Your task to perform on an android device: open app "Nova Launcher" (install if not already installed) Image 0: 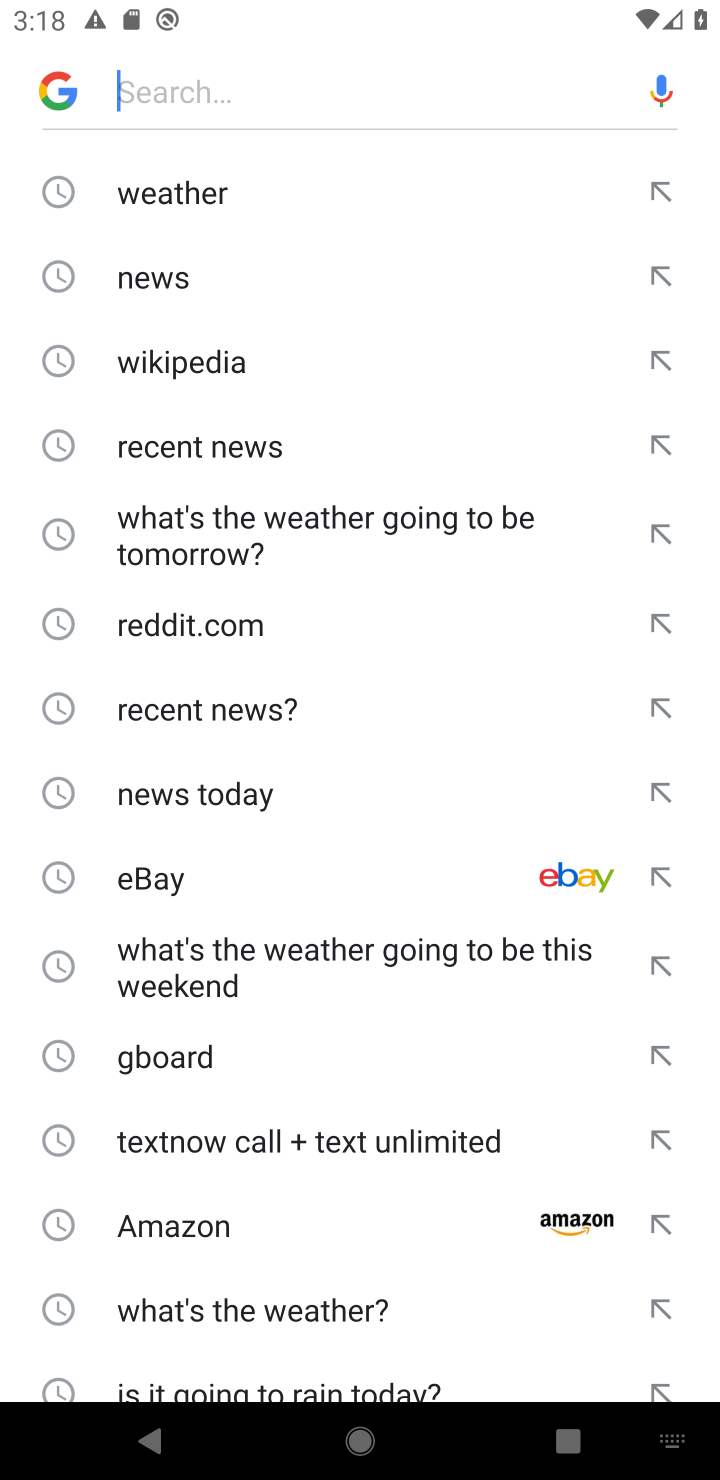
Step 0: press back button
Your task to perform on an android device: open app "Nova Launcher" (install if not already installed) Image 1: 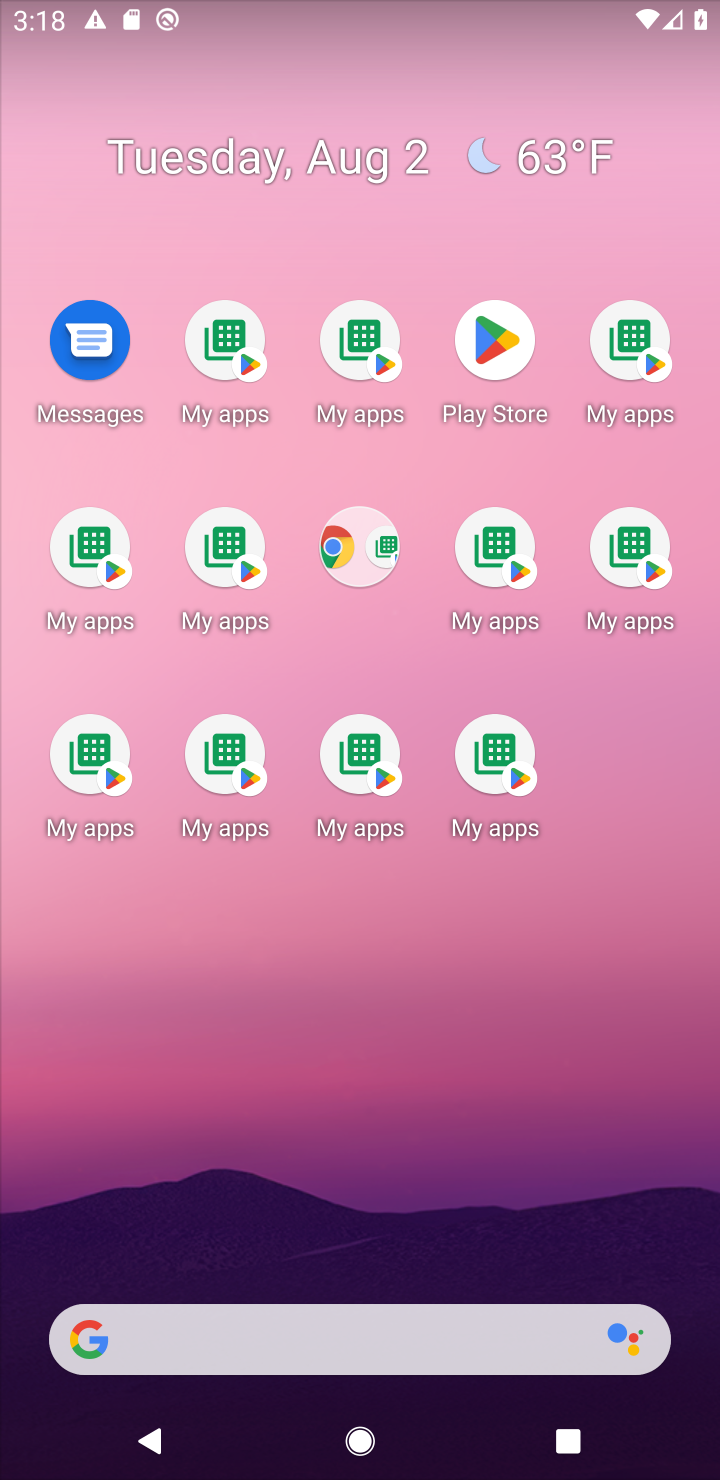
Step 1: click (506, 333)
Your task to perform on an android device: open app "Nova Launcher" (install if not already installed) Image 2: 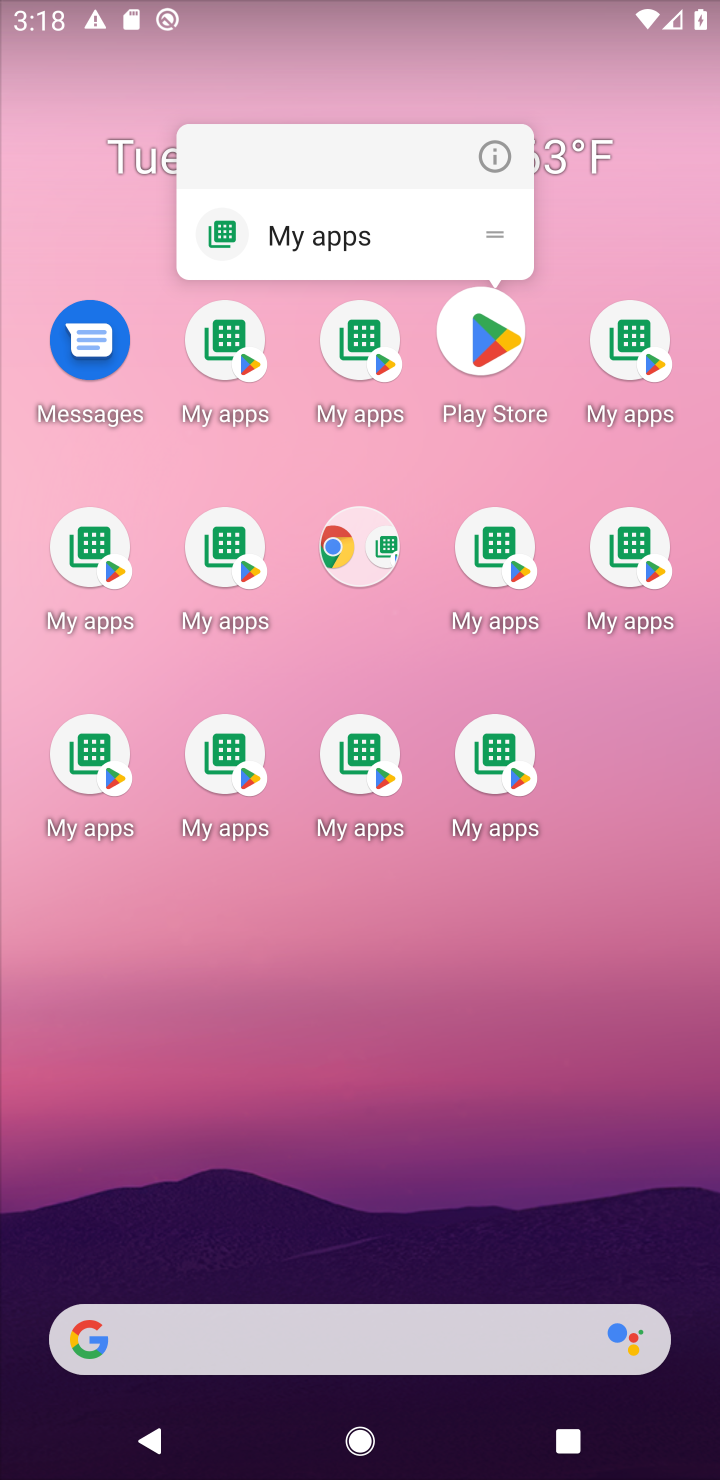
Step 2: click (486, 362)
Your task to perform on an android device: open app "Nova Launcher" (install if not already installed) Image 3: 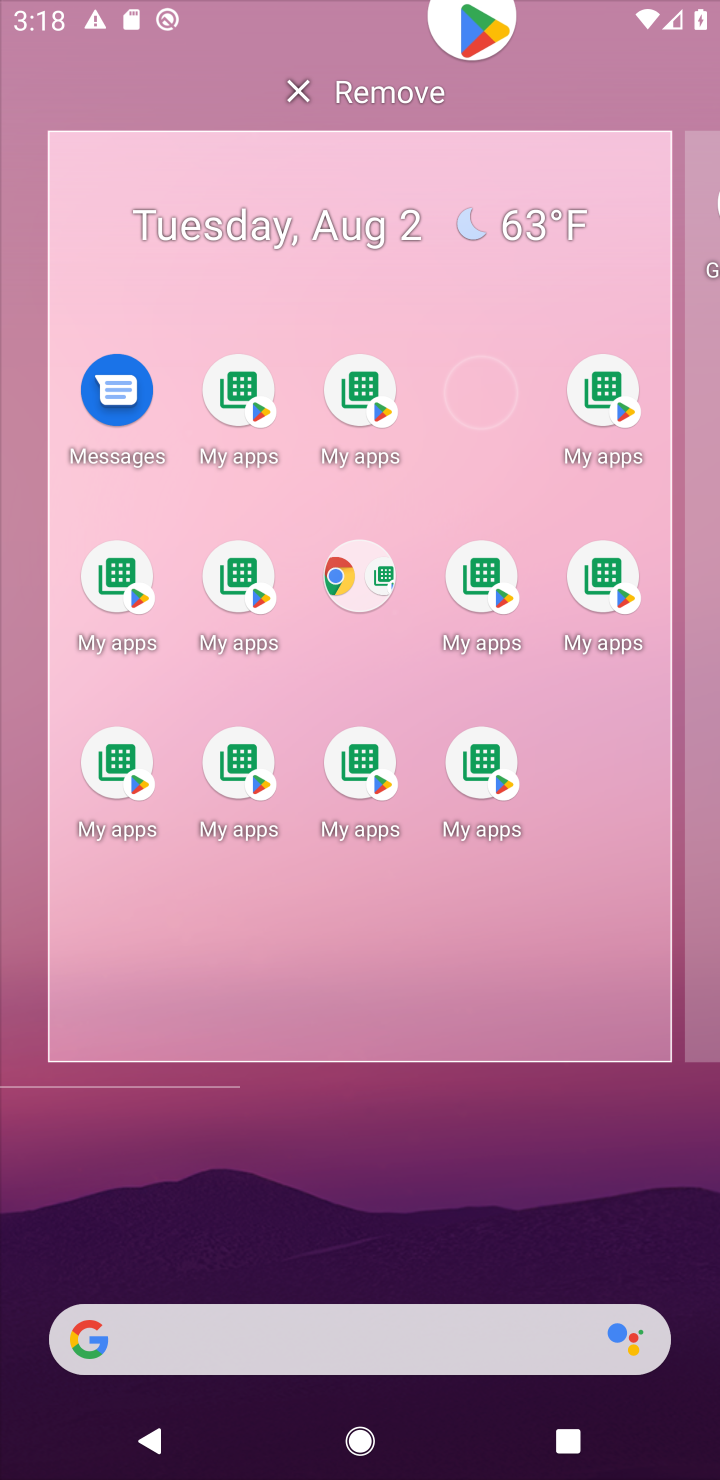
Step 3: drag from (517, 510) to (379, 284)
Your task to perform on an android device: open app "Nova Launcher" (install if not already installed) Image 4: 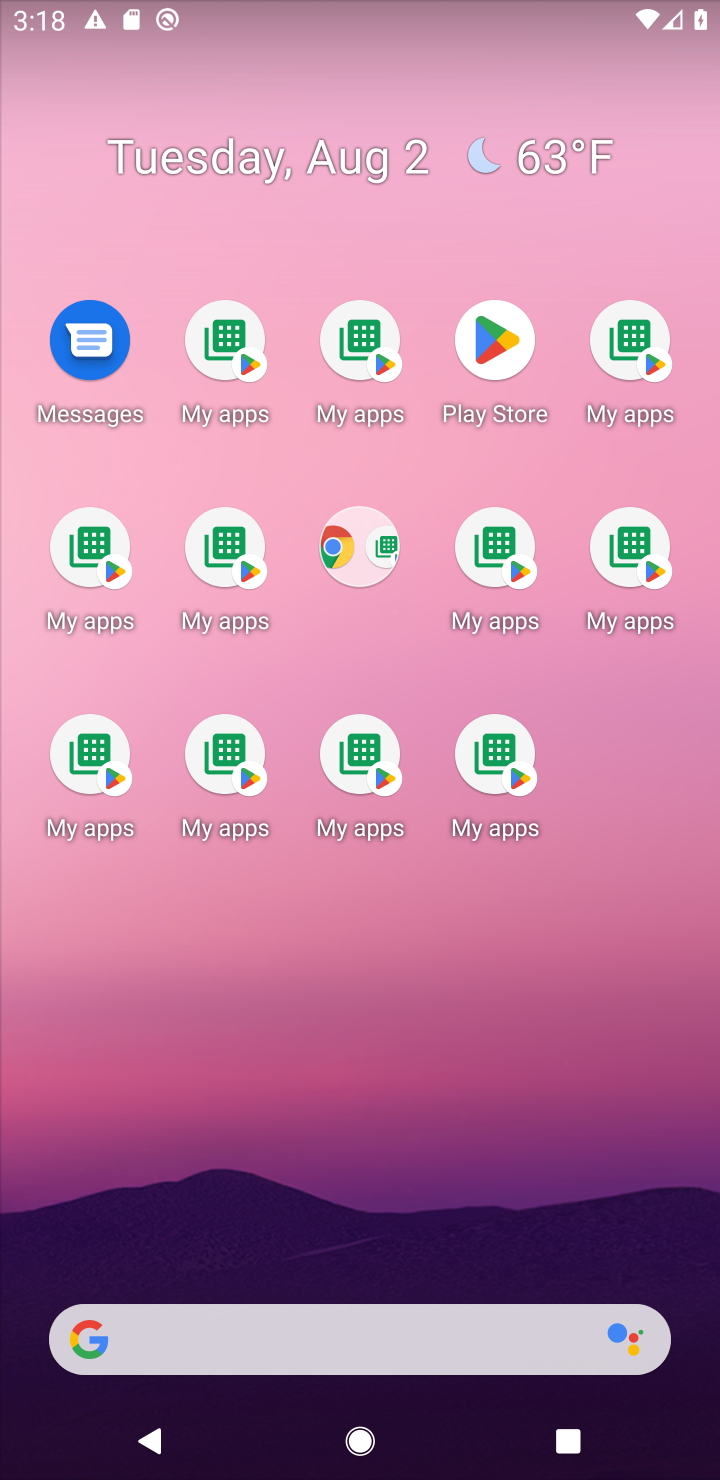
Step 4: click (507, 346)
Your task to perform on an android device: open app "Nova Launcher" (install if not already installed) Image 5: 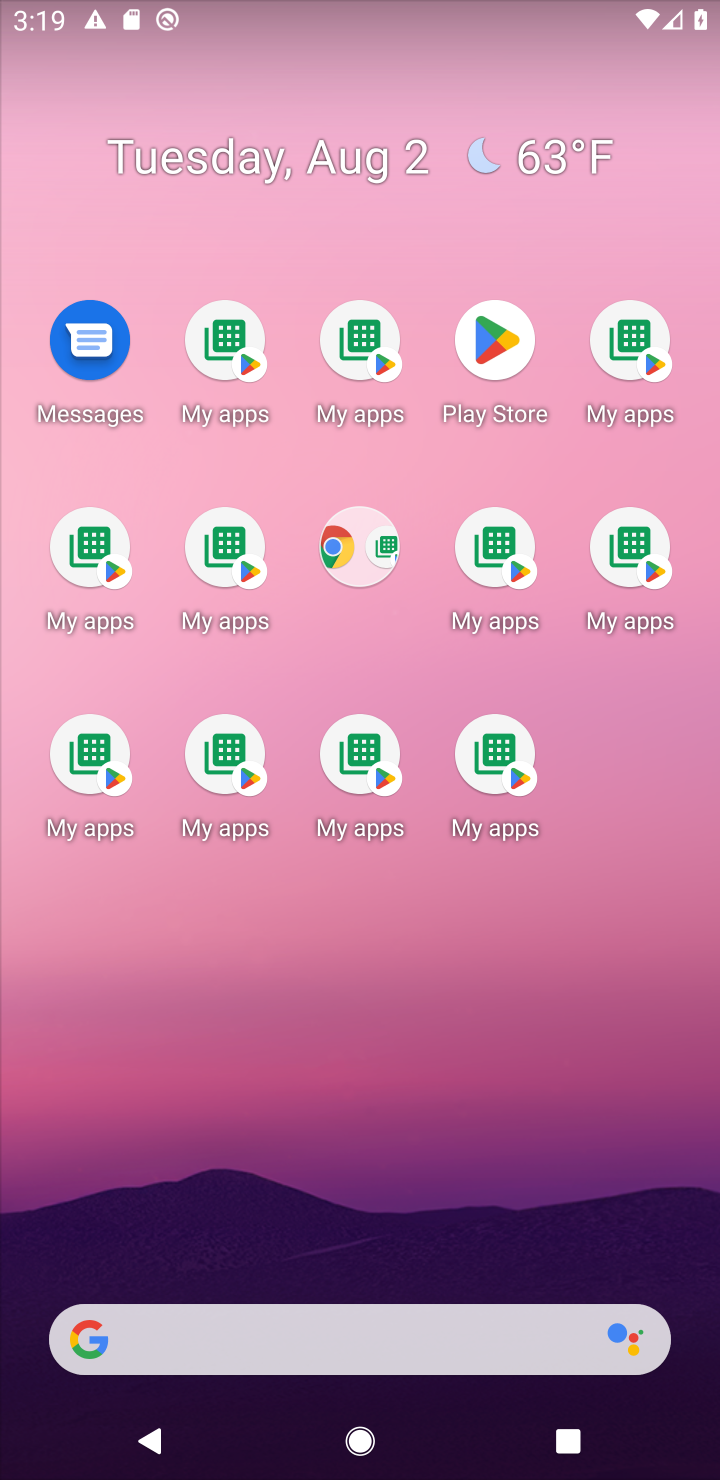
Step 5: click (489, 326)
Your task to perform on an android device: open app "Nova Launcher" (install if not already installed) Image 6: 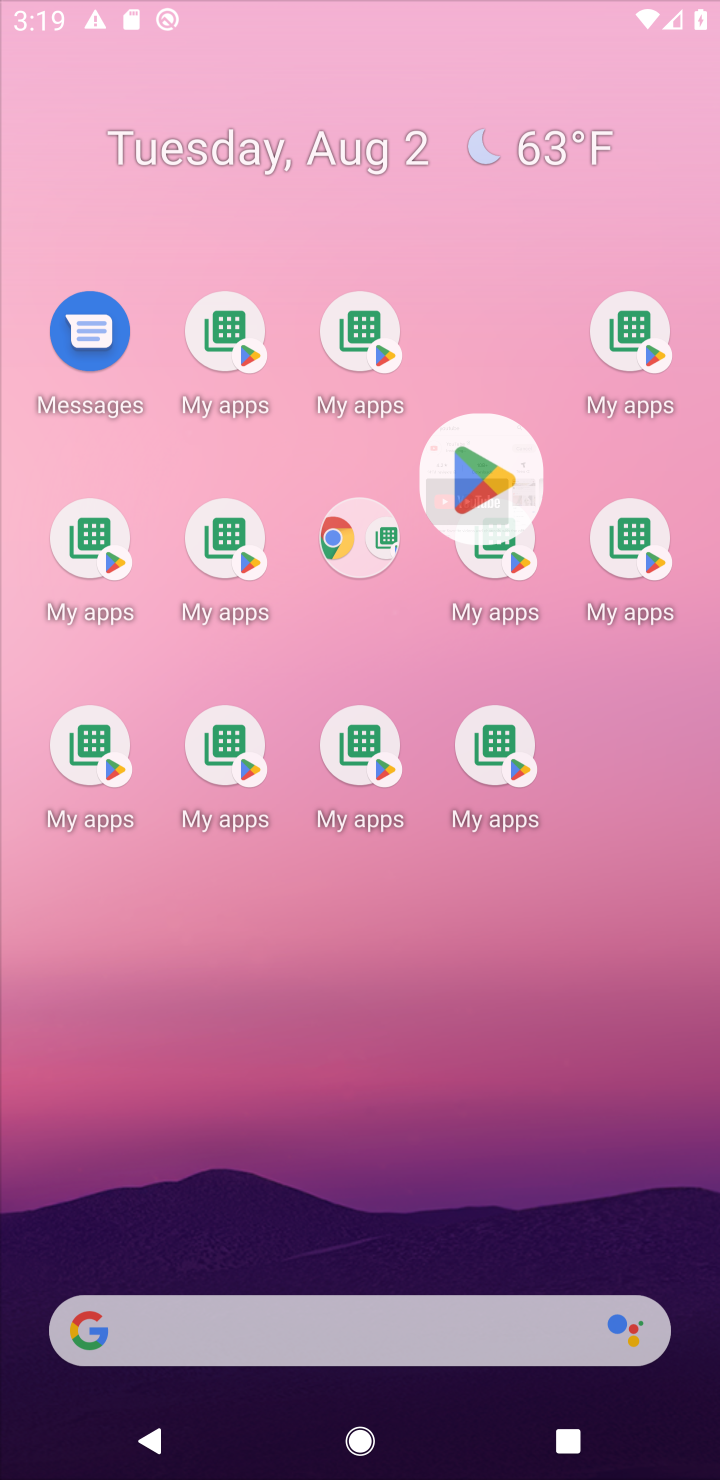
Step 6: click (508, 360)
Your task to perform on an android device: open app "Nova Launcher" (install if not already installed) Image 7: 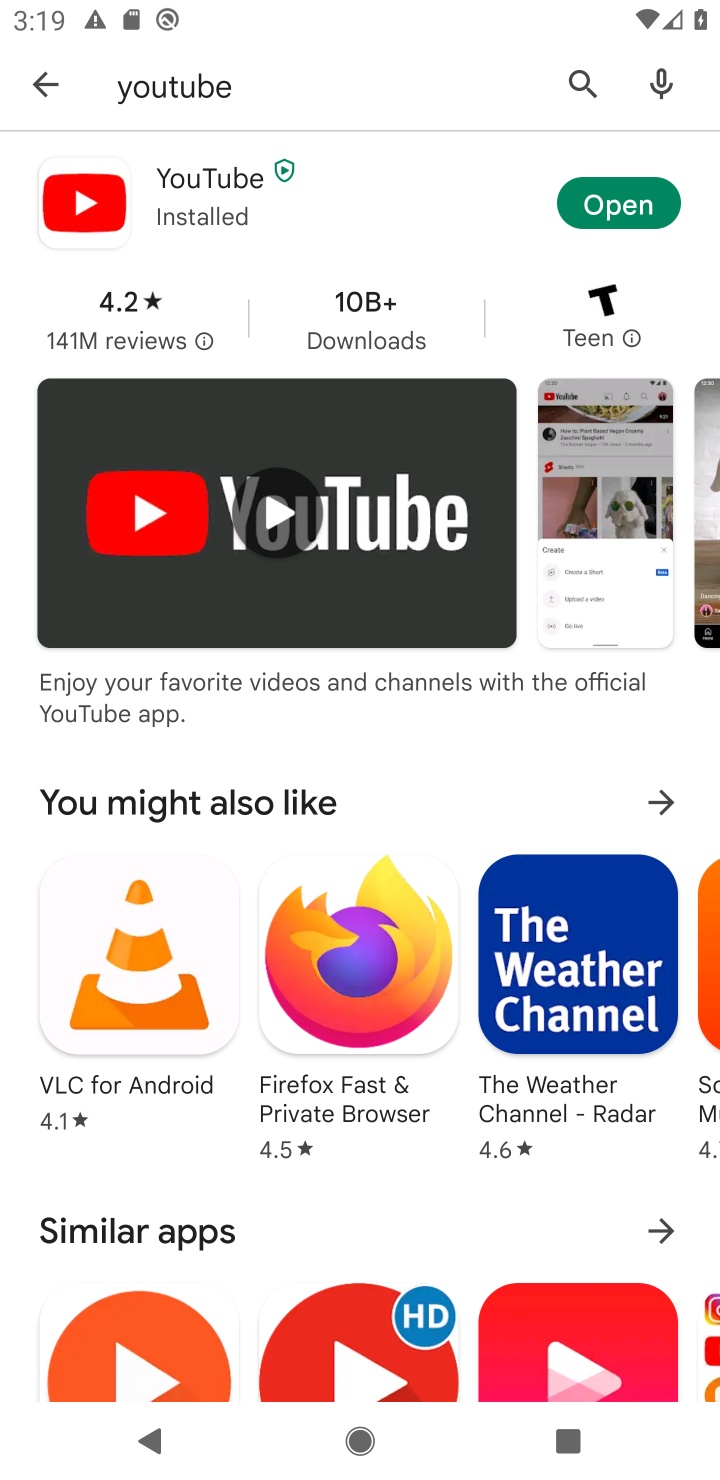
Step 7: click (600, 68)
Your task to perform on an android device: open app "Nova Launcher" (install if not already installed) Image 8: 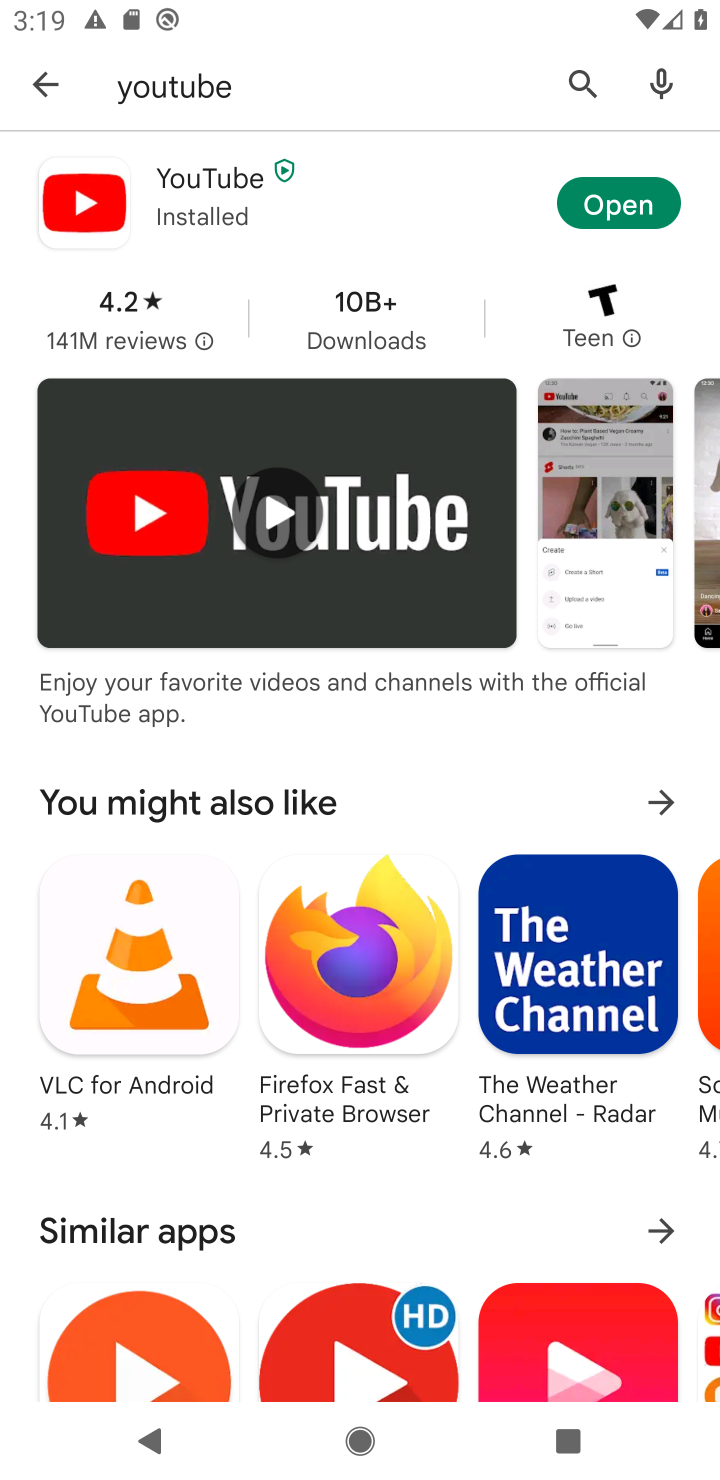
Step 8: click (595, 57)
Your task to perform on an android device: open app "Nova Launcher" (install if not already installed) Image 9: 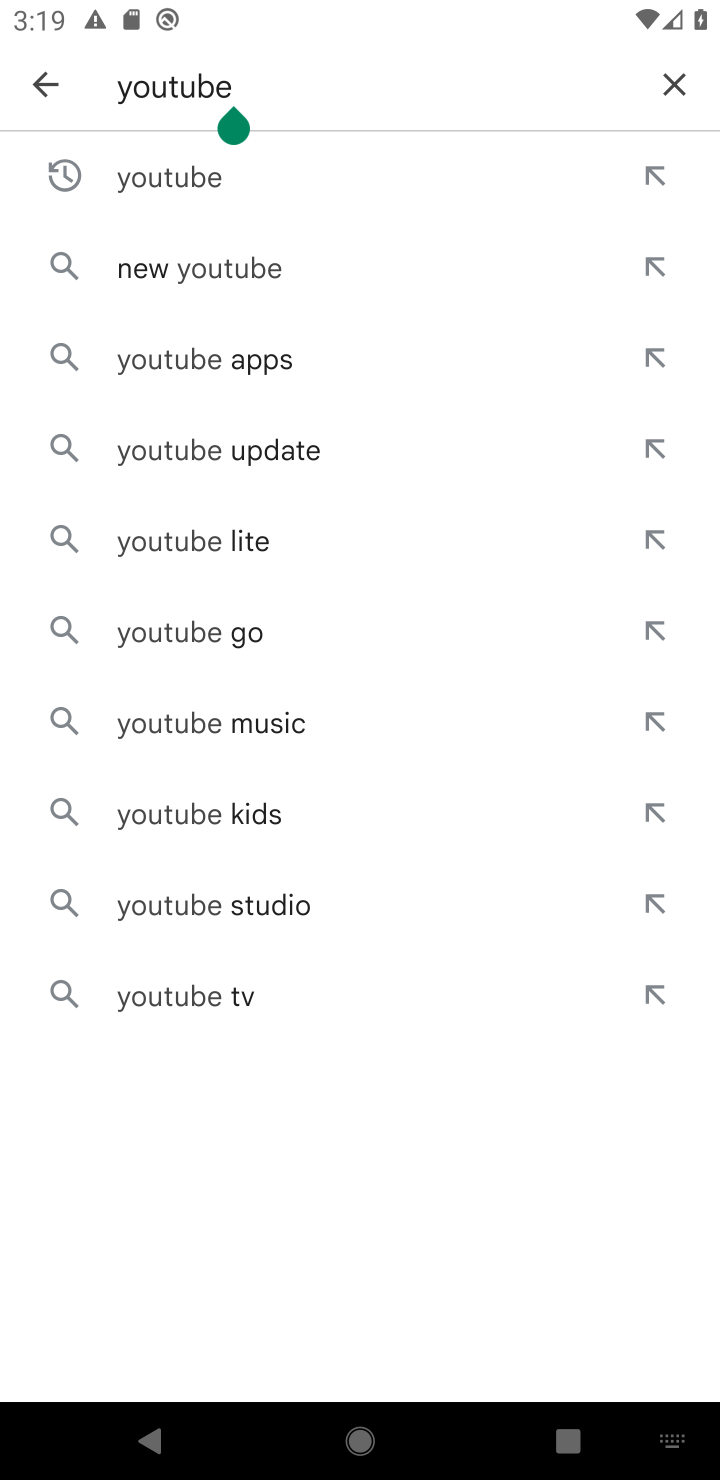
Step 9: click (650, 80)
Your task to perform on an android device: open app "Nova Launcher" (install if not already installed) Image 10: 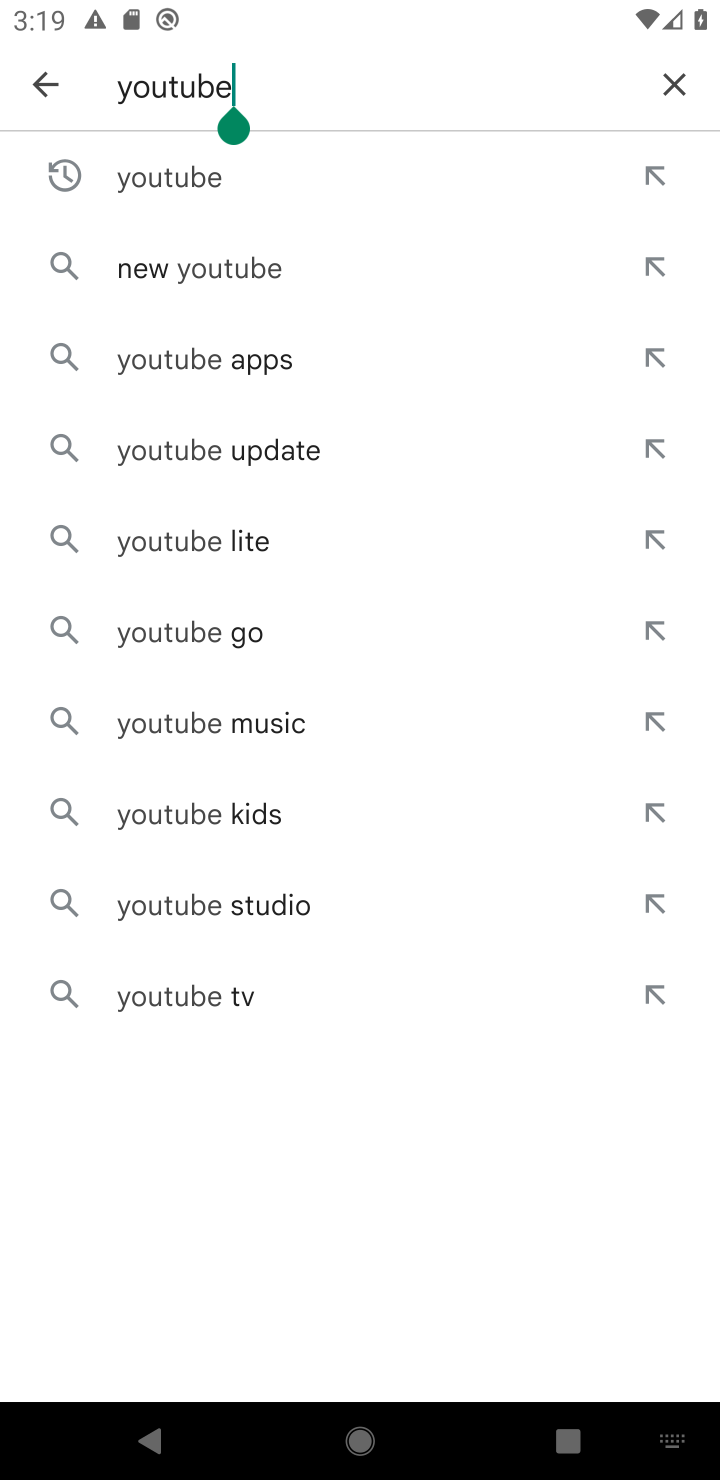
Step 10: click (650, 86)
Your task to perform on an android device: open app "Nova Launcher" (install if not already installed) Image 11: 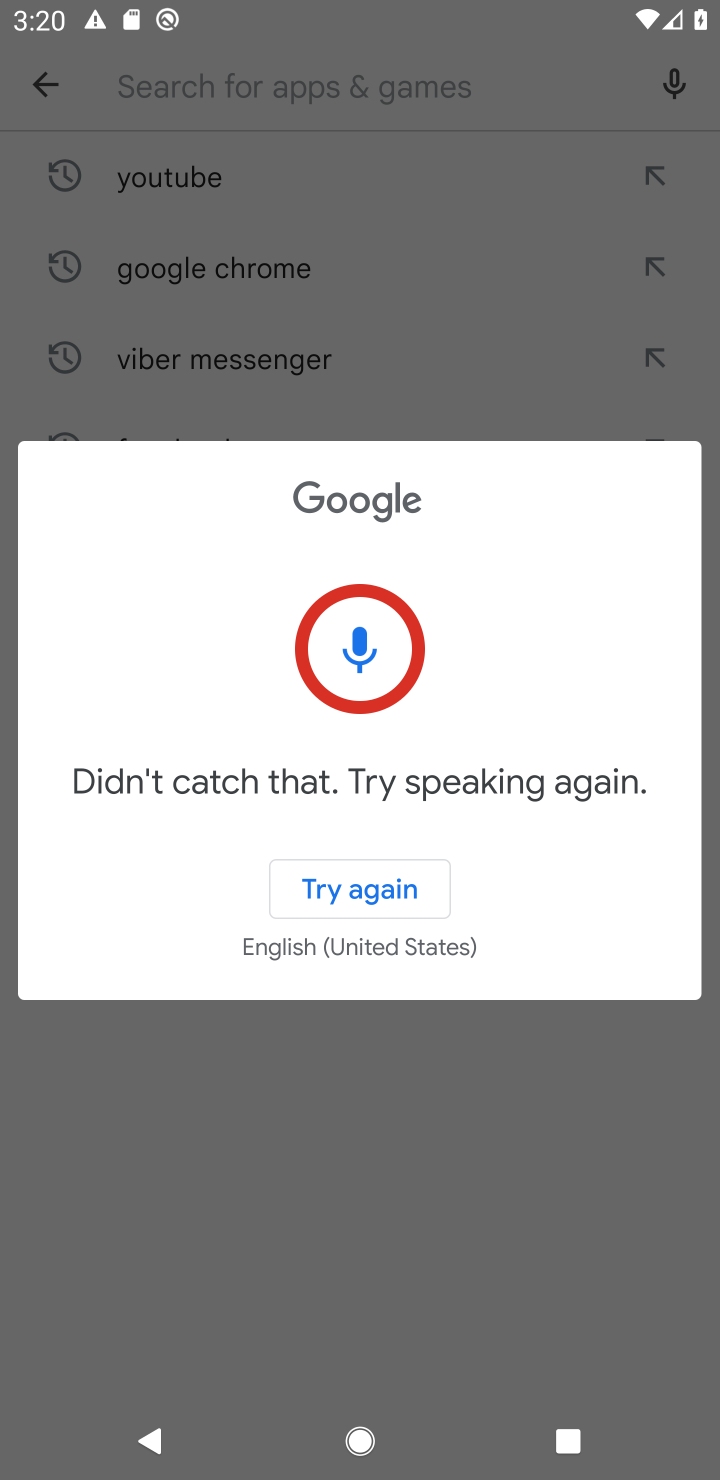
Step 11: type "nova launch4r"
Your task to perform on an android device: open app "Nova Launcher" (install if not already installed) Image 12: 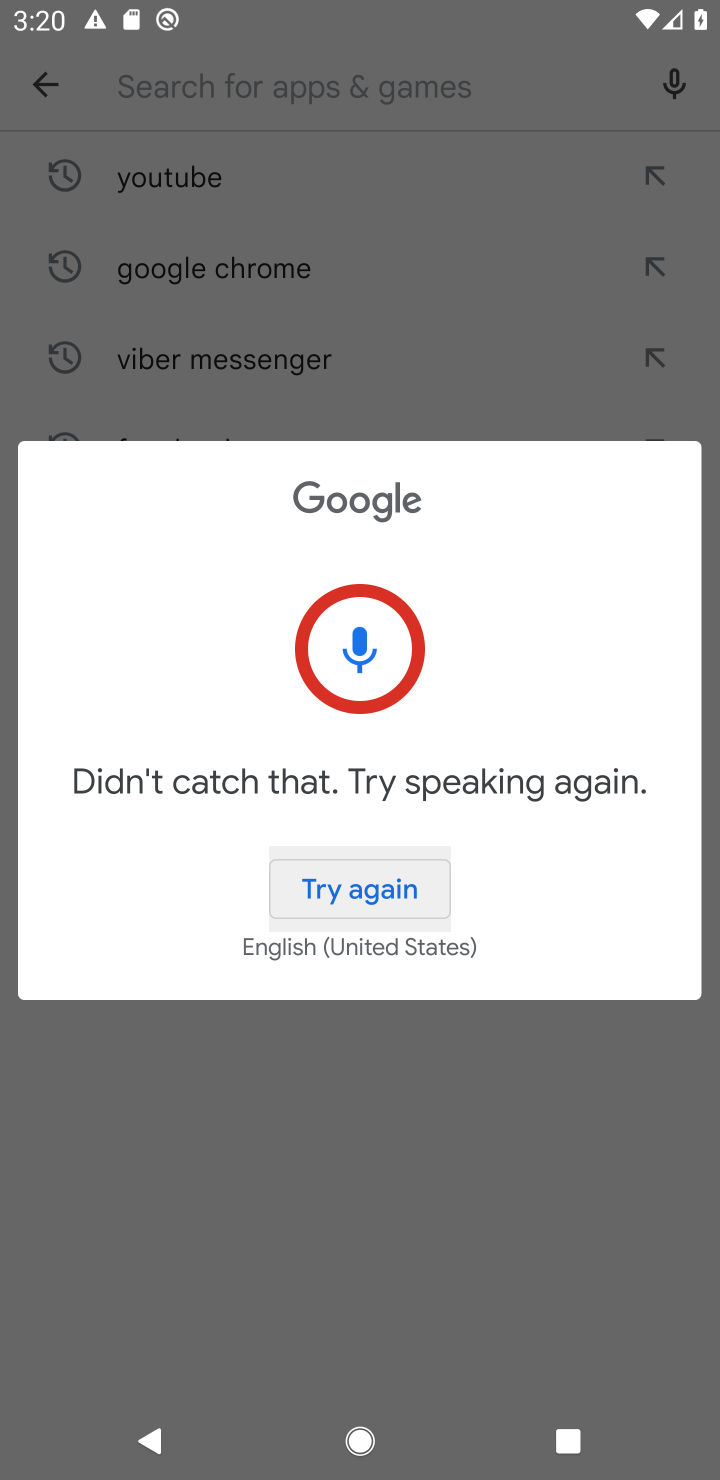
Step 12: click (381, 926)
Your task to perform on an android device: open app "Nova Launcher" (install if not already installed) Image 13: 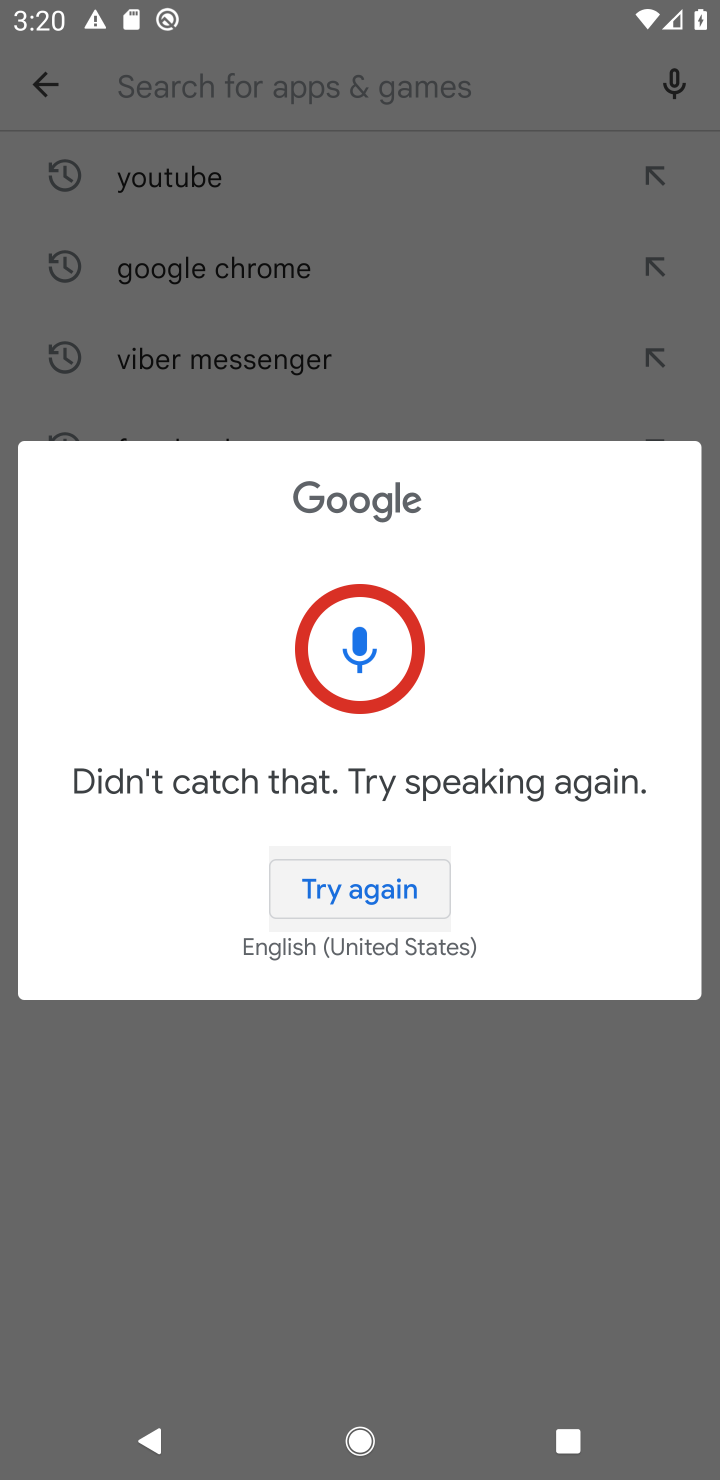
Step 13: click (369, 876)
Your task to perform on an android device: open app "Nova Launcher" (install if not already installed) Image 14: 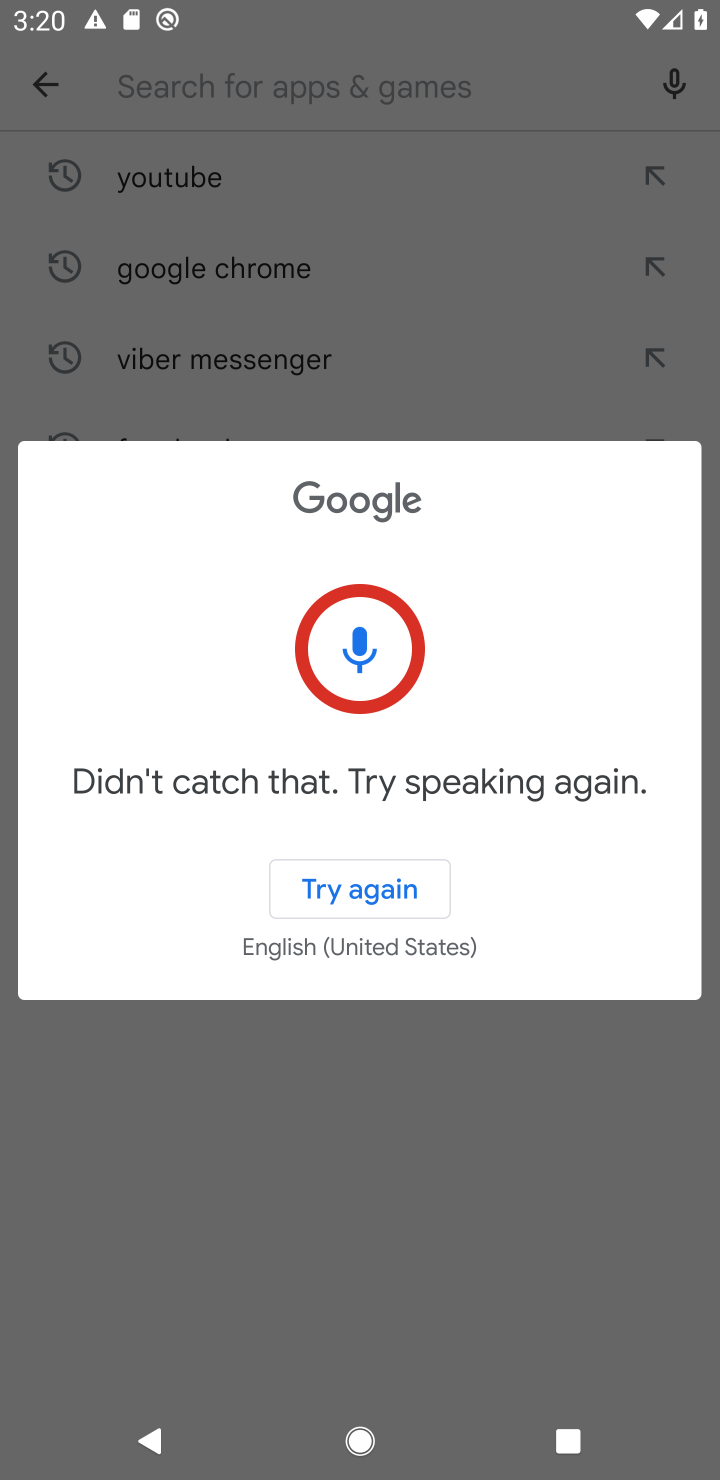
Step 14: click (338, 877)
Your task to perform on an android device: open app "Nova Launcher" (install if not already installed) Image 15: 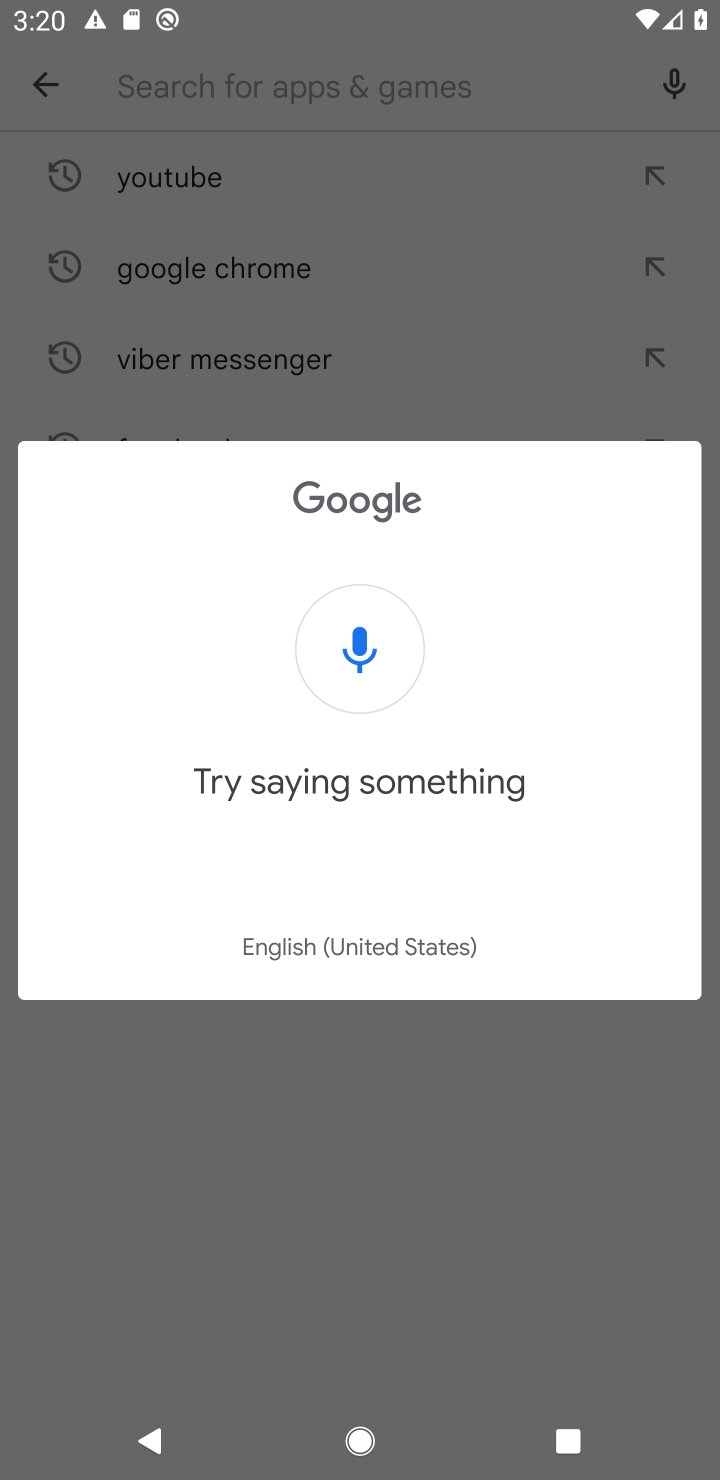
Step 15: click (358, 878)
Your task to perform on an android device: open app "Nova Launcher" (install if not already installed) Image 16: 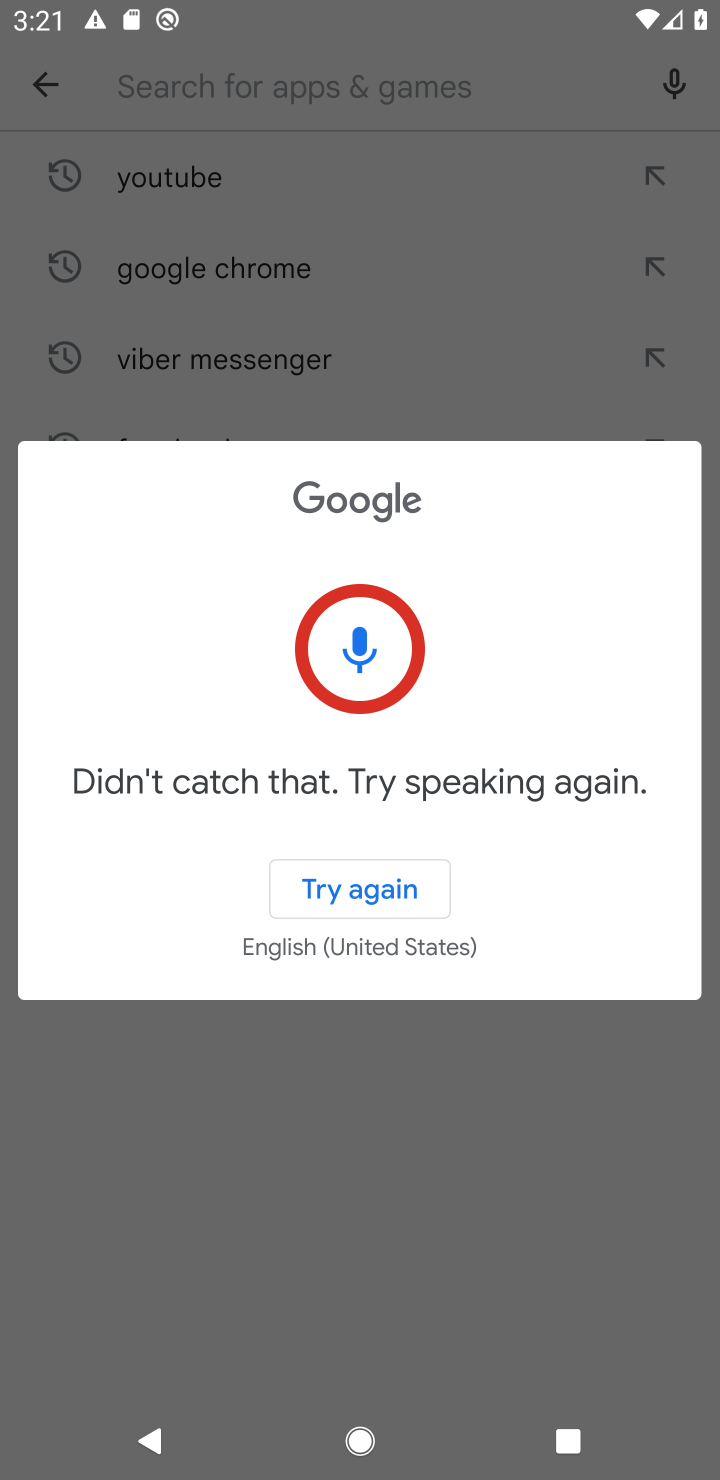
Step 16: click (378, 881)
Your task to perform on an android device: open app "Nova Launcher" (install if not already installed) Image 17: 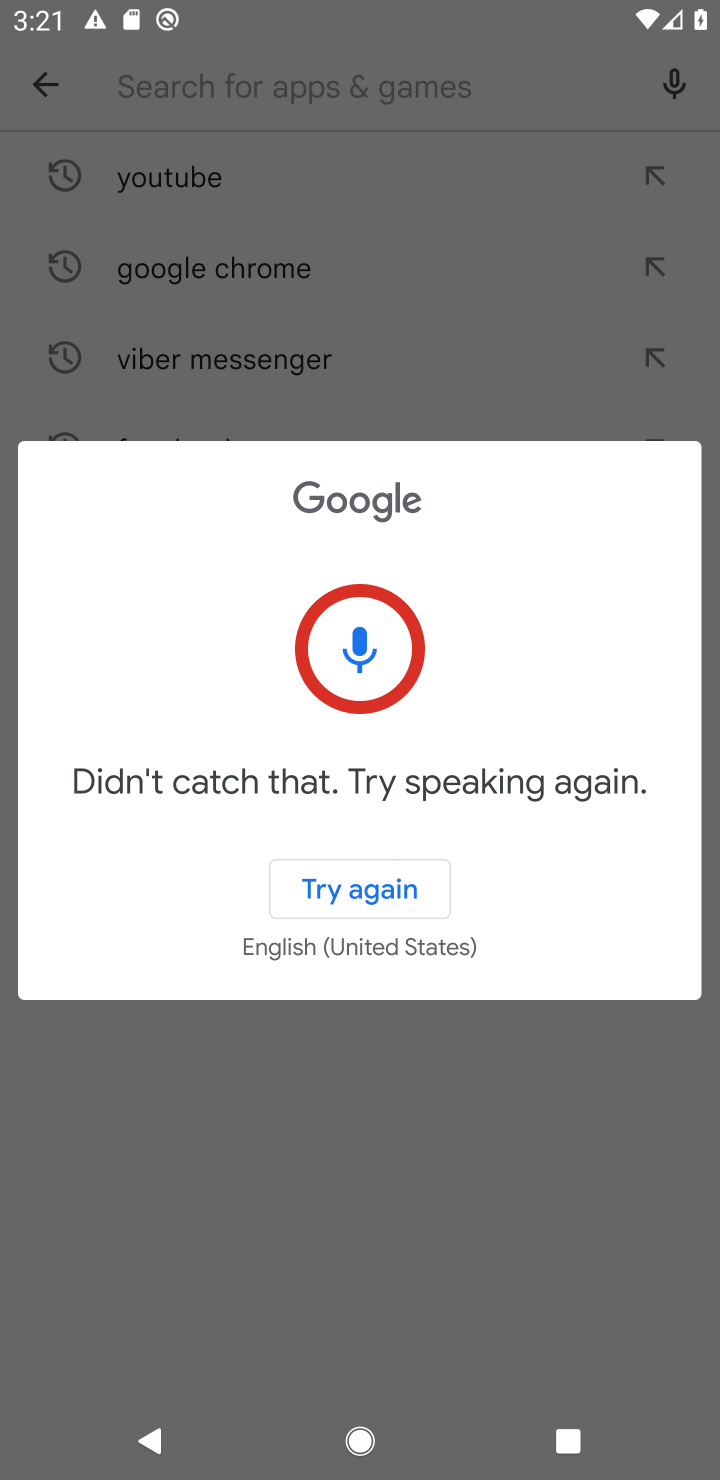
Step 17: click (375, 876)
Your task to perform on an android device: open app "Nova Launcher" (install if not already installed) Image 18: 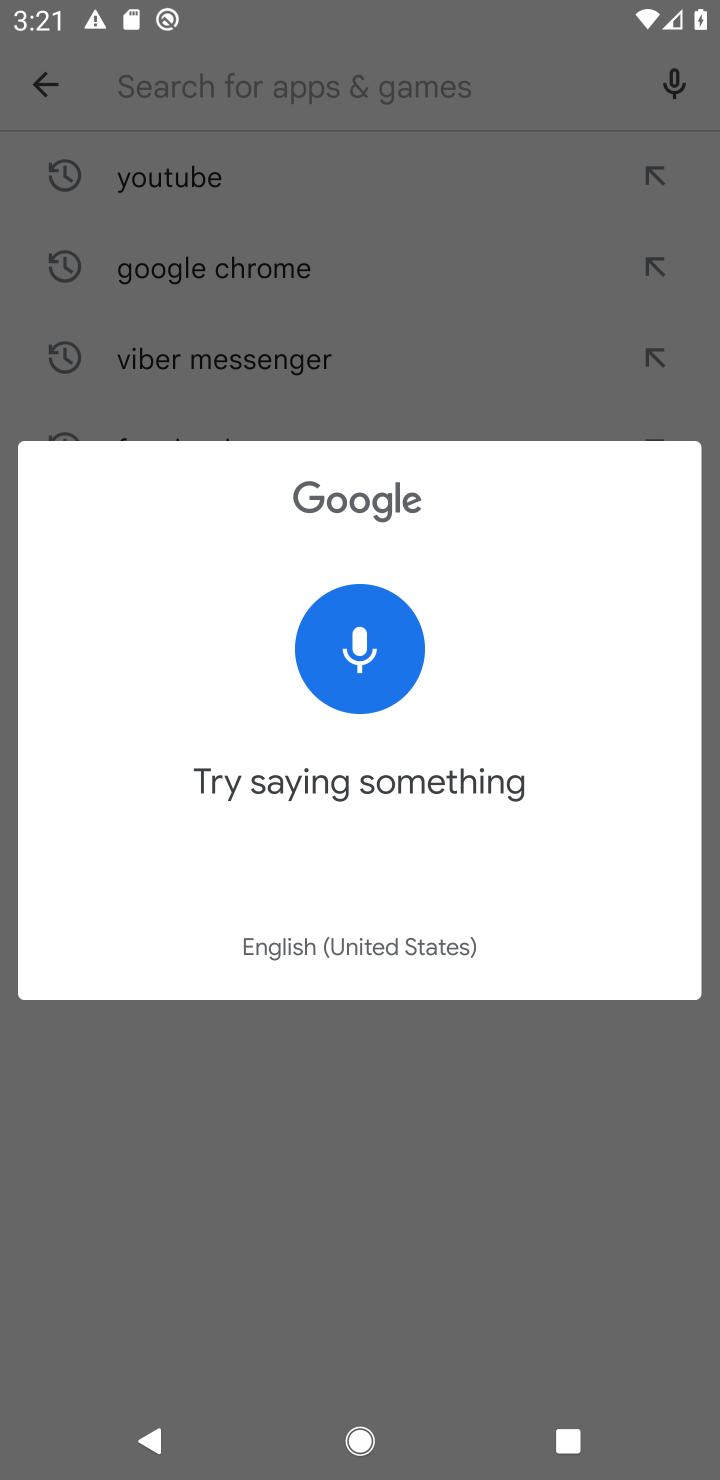
Step 18: click (193, 95)
Your task to perform on an android device: open app "Nova Launcher" (install if not already installed) Image 19: 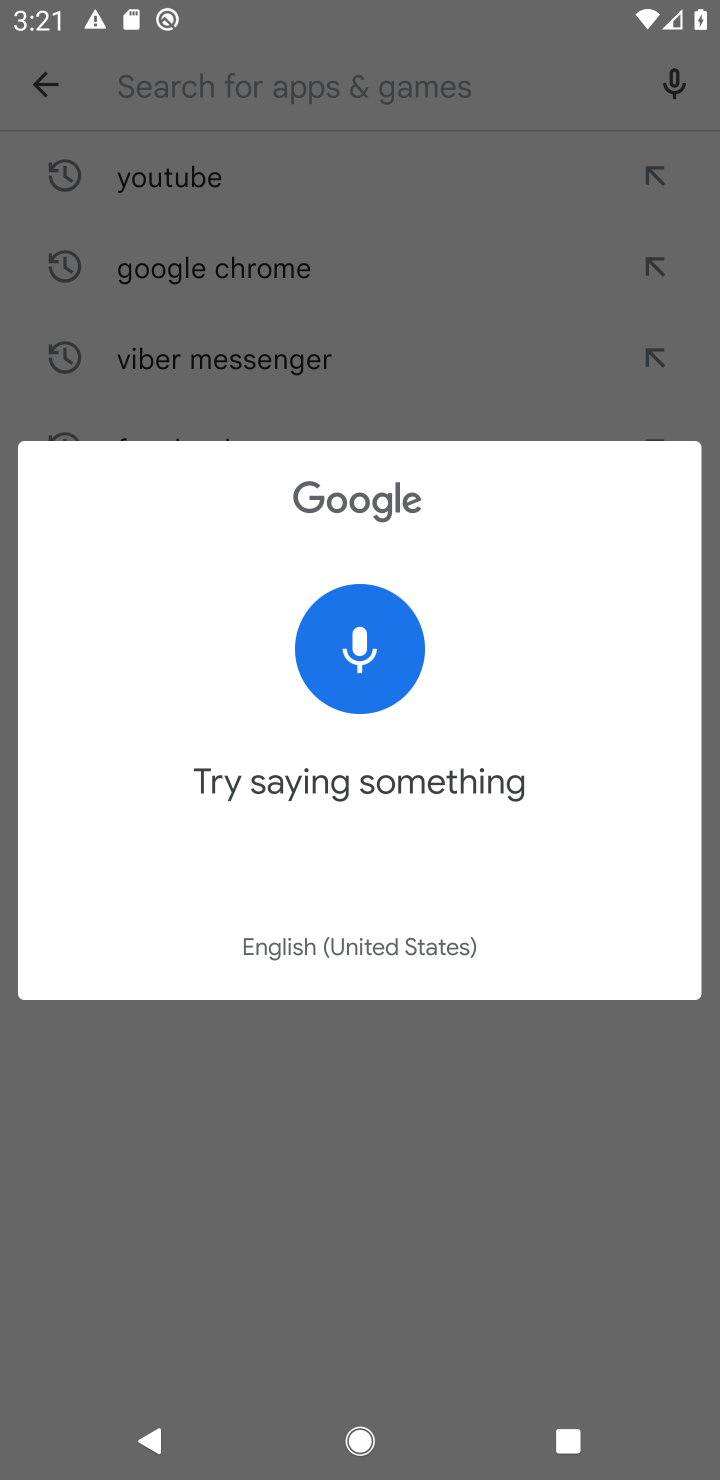
Step 19: click (240, 143)
Your task to perform on an android device: open app "Nova Launcher" (install if not already installed) Image 20: 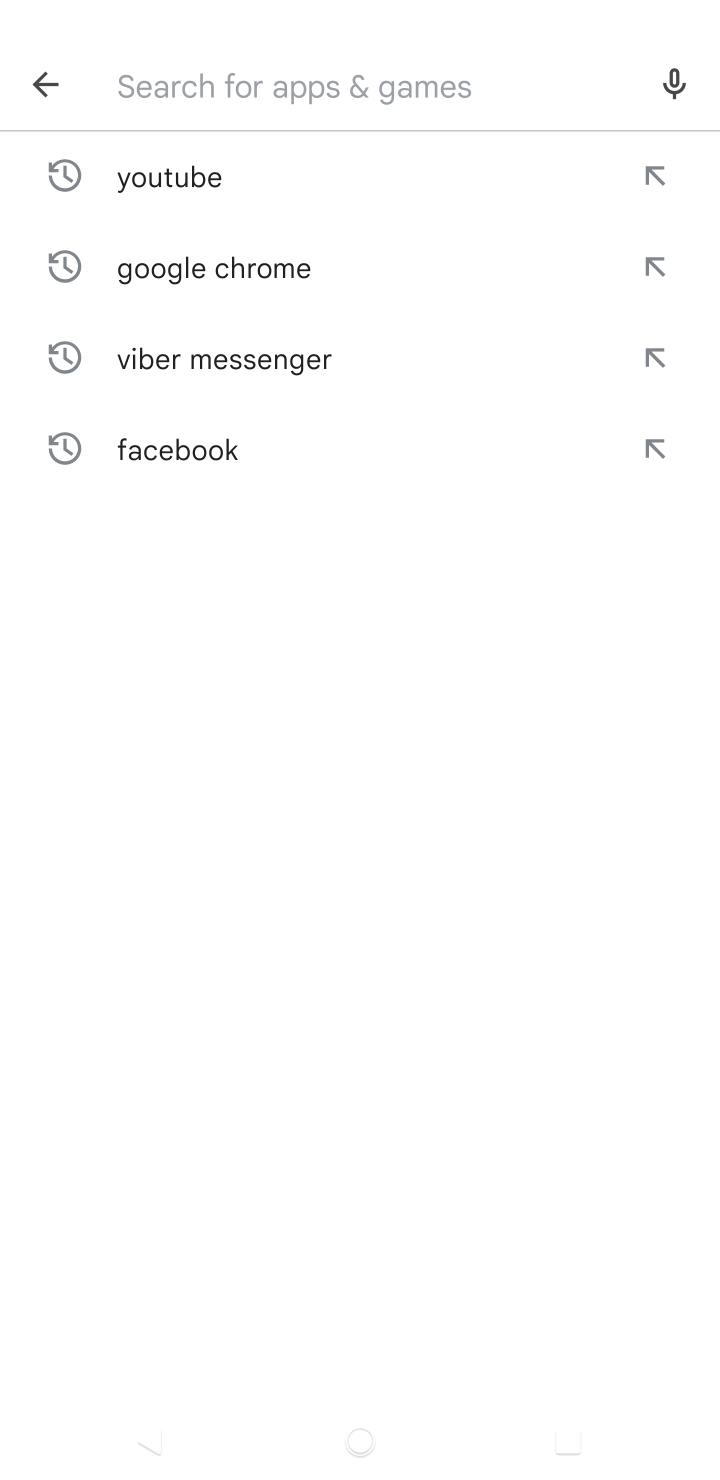
Step 20: click (189, 85)
Your task to perform on an android device: open app "Nova Launcher" (install if not already installed) Image 21: 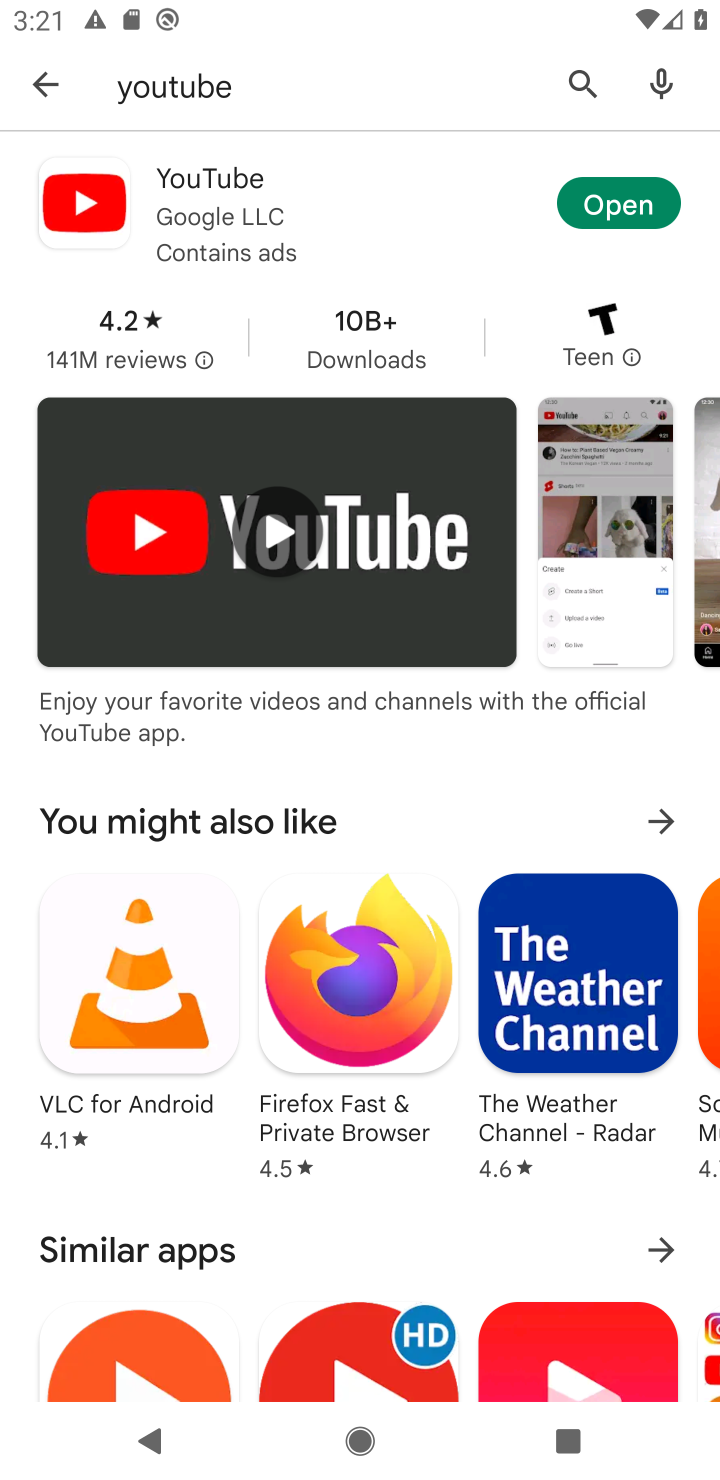
Step 21: click (588, 82)
Your task to perform on an android device: open app "Nova Launcher" (install if not already installed) Image 22: 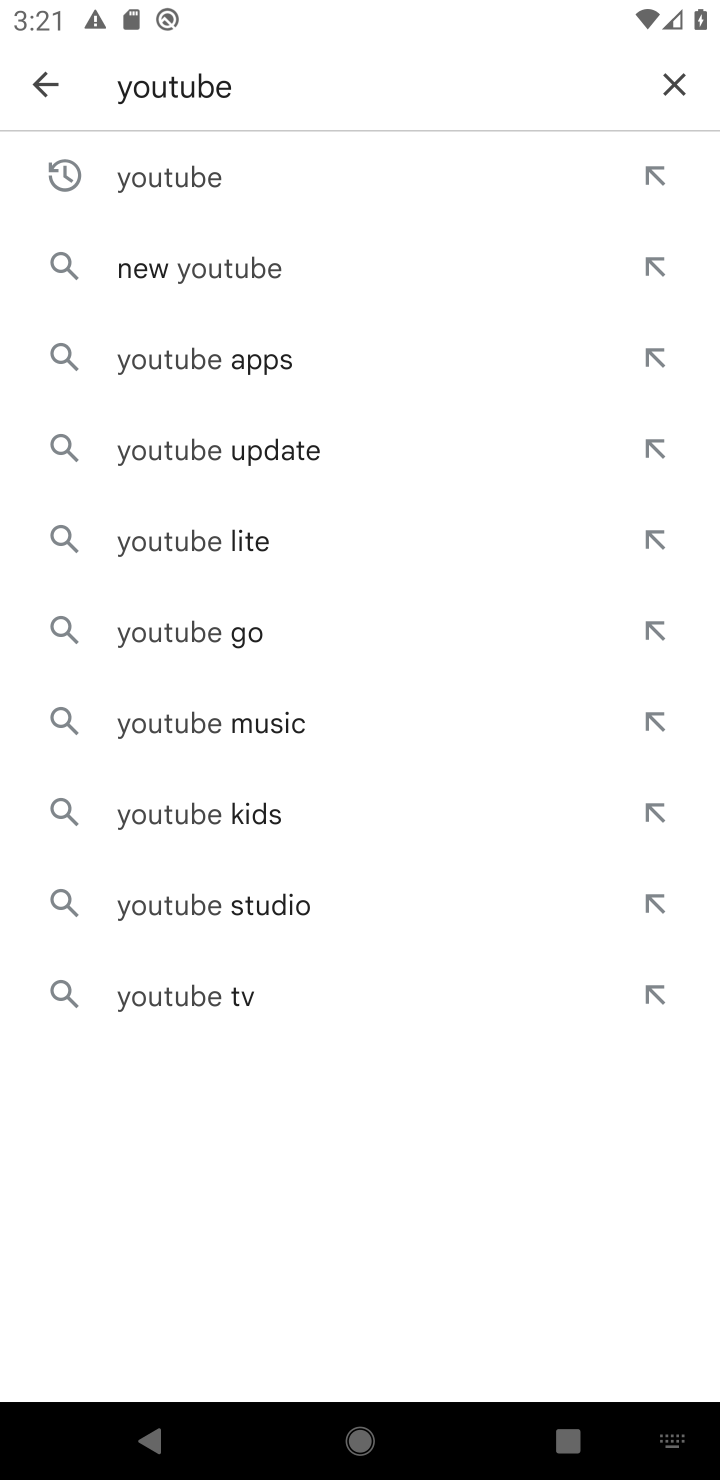
Step 22: type "nova launxher"
Your task to perform on an android device: open app "Nova Launcher" (install if not already installed) Image 23: 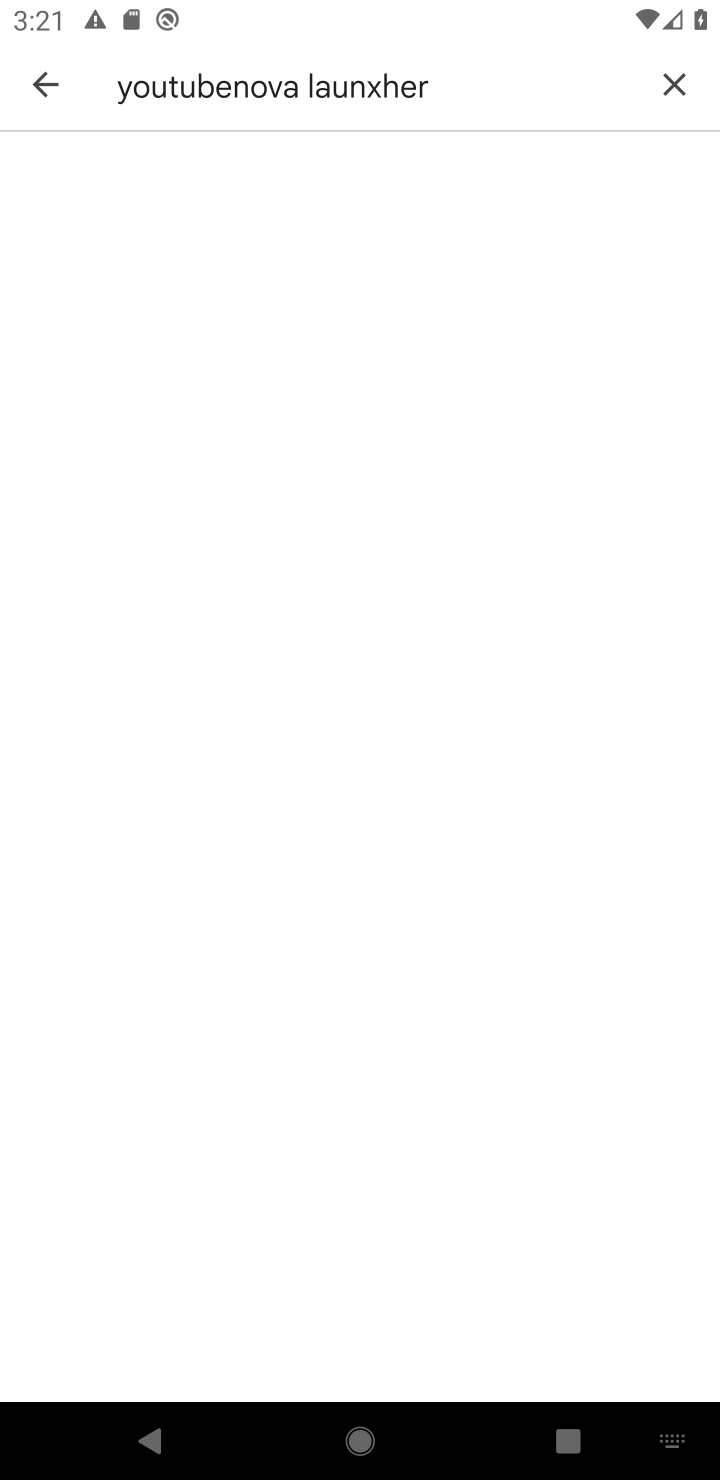
Step 23: click (552, 141)
Your task to perform on an android device: open app "Nova Launcher" (install if not already installed) Image 24: 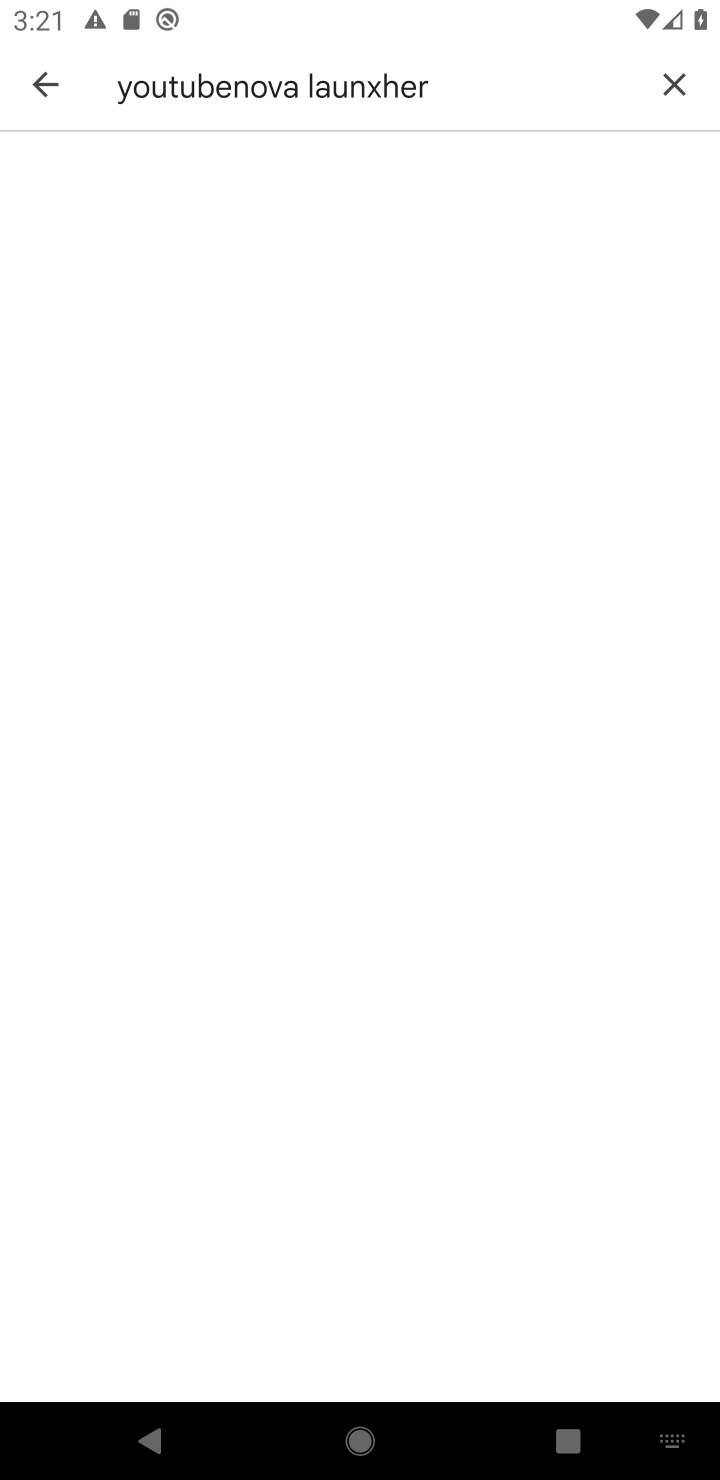
Step 24: click (679, 96)
Your task to perform on an android device: open app "Nova Launcher" (install if not already installed) Image 25: 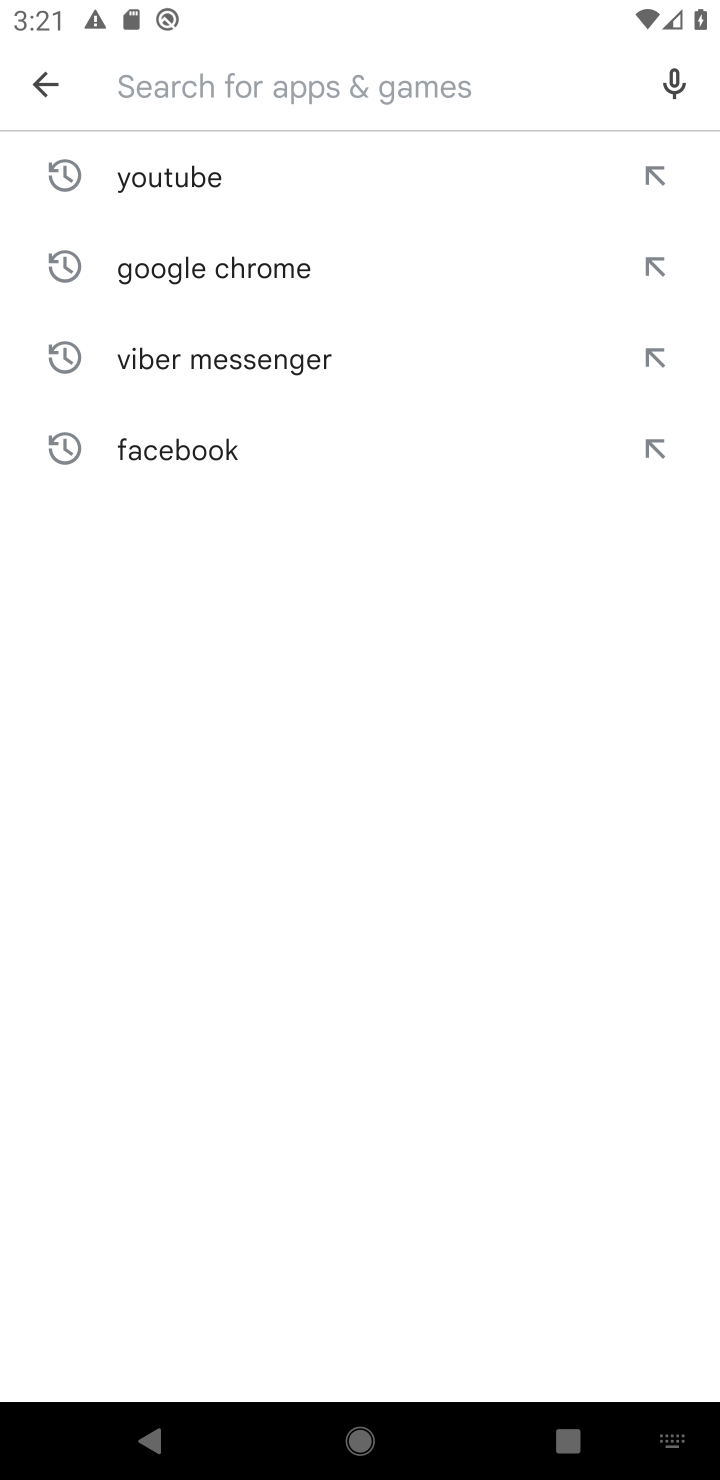
Step 25: task complete